Your task to perform on an android device: Open Google Maps Image 0: 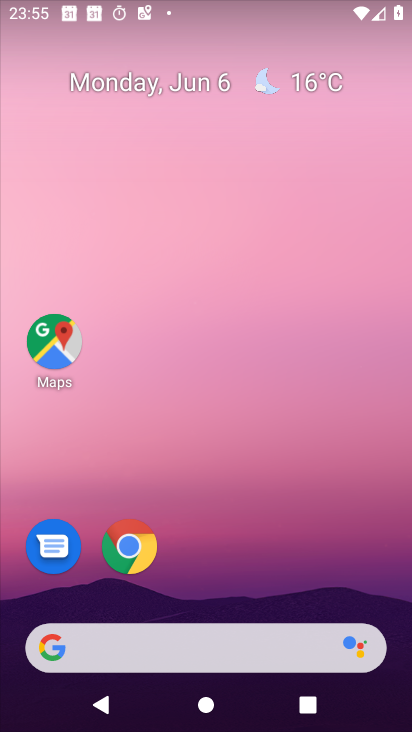
Step 0: click (50, 339)
Your task to perform on an android device: Open Google Maps Image 1: 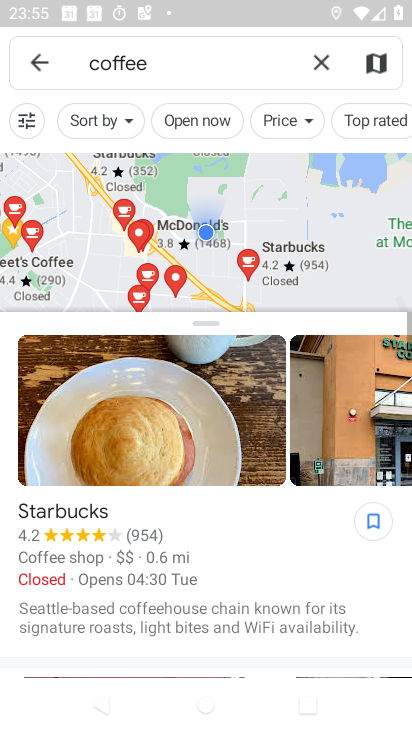
Step 1: click (42, 66)
Your task to perform on an android device: Open Google Maps Image 2: 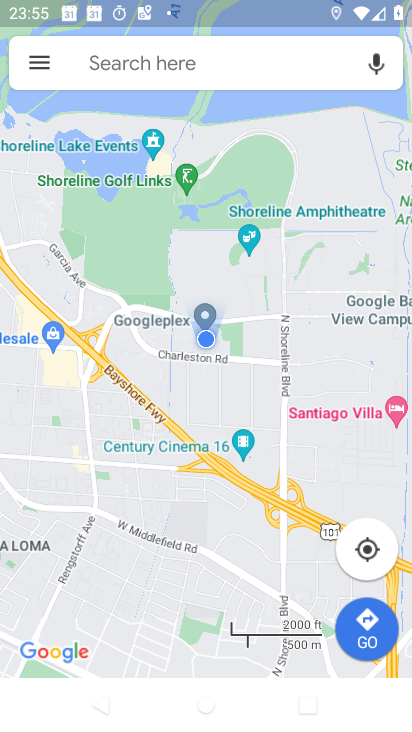
Step 2: task complete